Your task to perform on an android device: remove spam from my inbox in the gmail app Image 0: 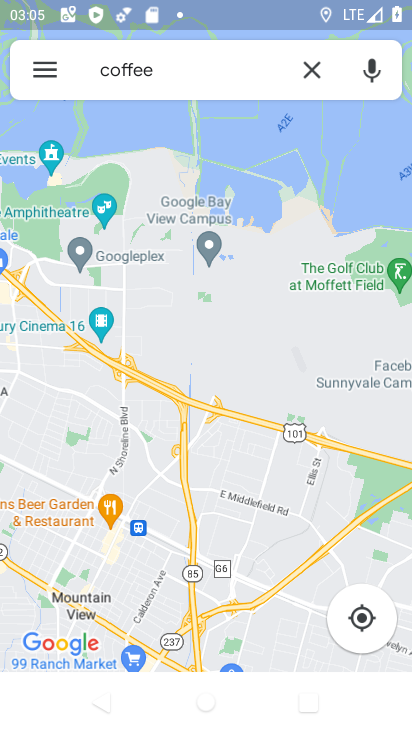
Step 0: drag from (224, 595) to (254, 269)
Your task to perform on an android device: remove spam from my inbox in the gmail app Image 1: 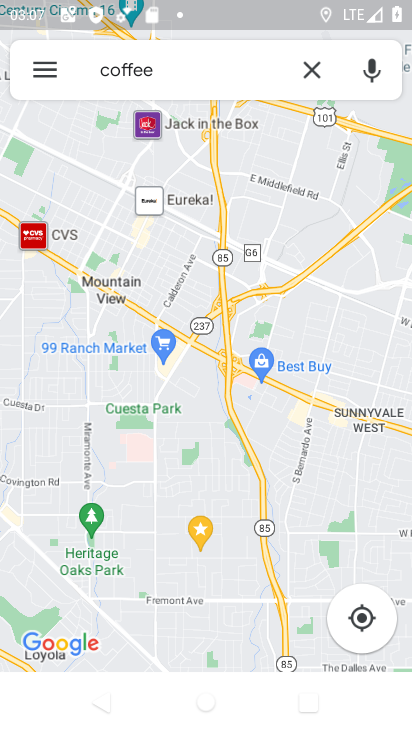
Step 1: press home button
Your task to perform on an android device: remove spam from my inbox in the gmail app Image 2: 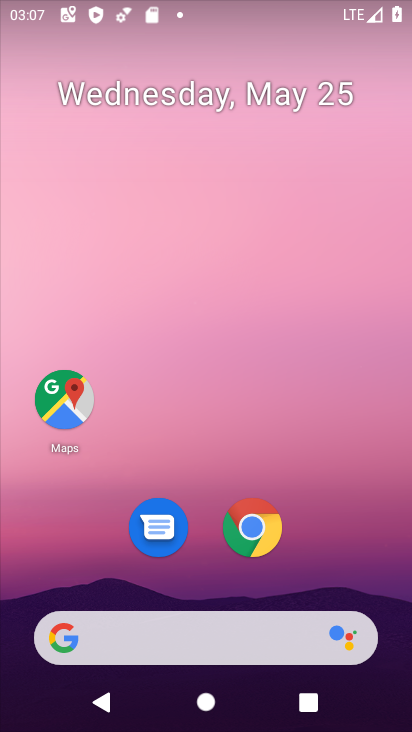
Step 2: drag from (246, 587) to (272, 73)
Your task to perform on an android device: remove spam from my inbox in the gmail app Image 3: 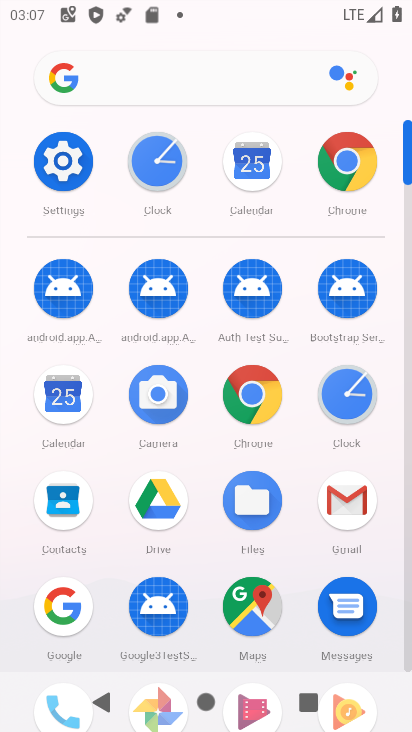
Step 3: click (344, 508)
Your task to perform on an android device: remove spam from my inbox in the gmail app Image 4: 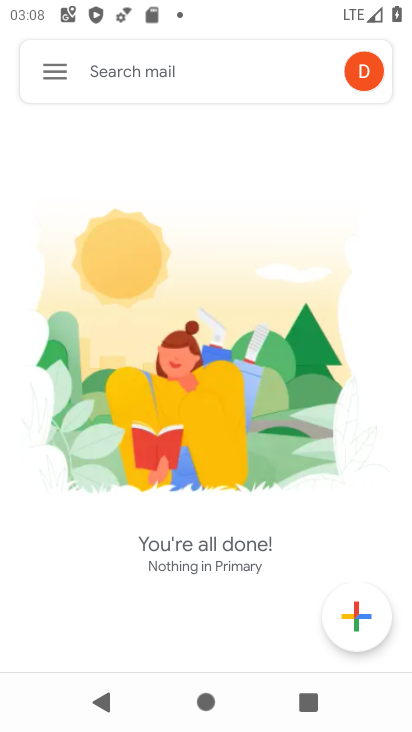
Step 4: click (36, 73)
Your task to perform on an android device: remove spam from my inbox in the gmail app Image 5: 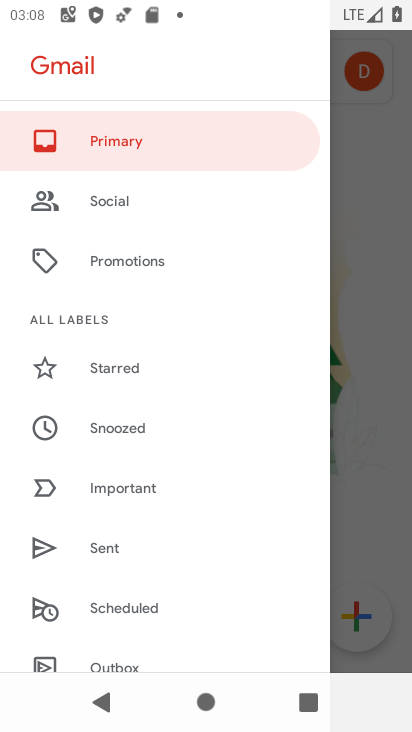
Step 5: drag from (146, 576) to (156, 121)
Your task to perform on an android device: remove spam from my inbox in the gmail app Image 6: 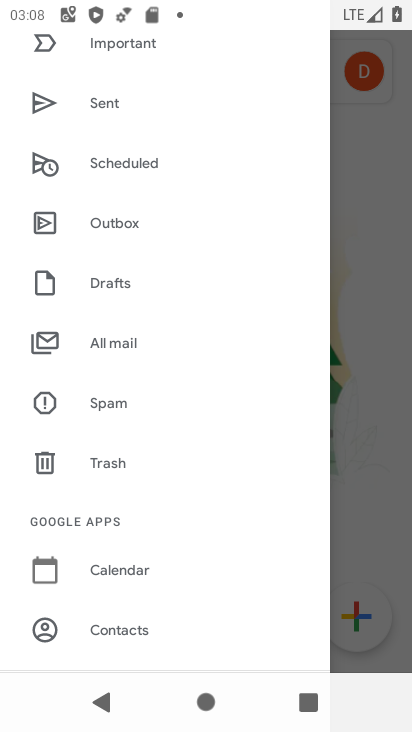
Step 6: click (145, 403)
Your task to perform on an android device: remove spam from my inbox in the gmail app Image 7: 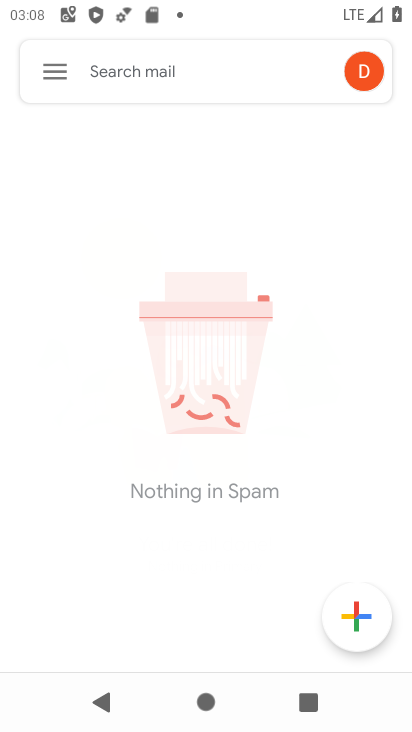
Step 7: task complete